Your task to perform on an android device: Go to location settings Image 0: 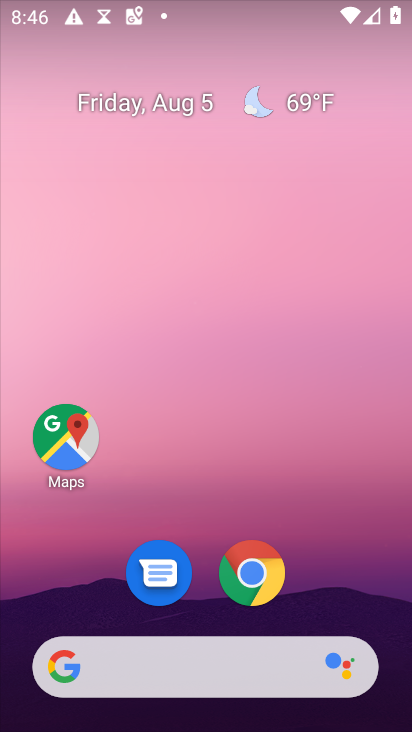
Step 0: drag from (179, 676) to (262, 82)
Your task to perform on an android device: Go to location settings Image 1: 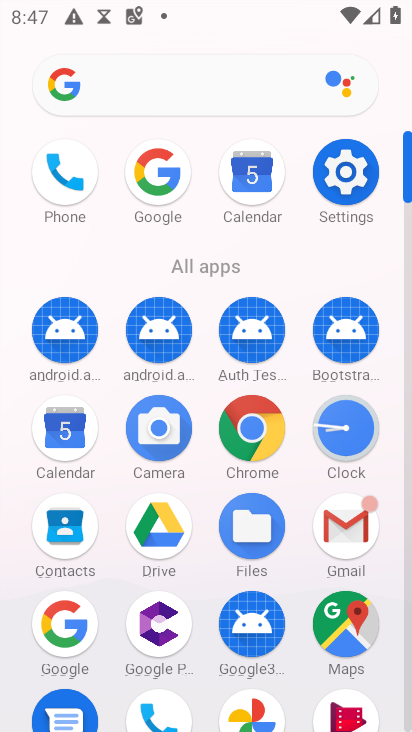
Step 1: click (346, 174)
Your task to perform on an android device: Go to location settings Image 2: 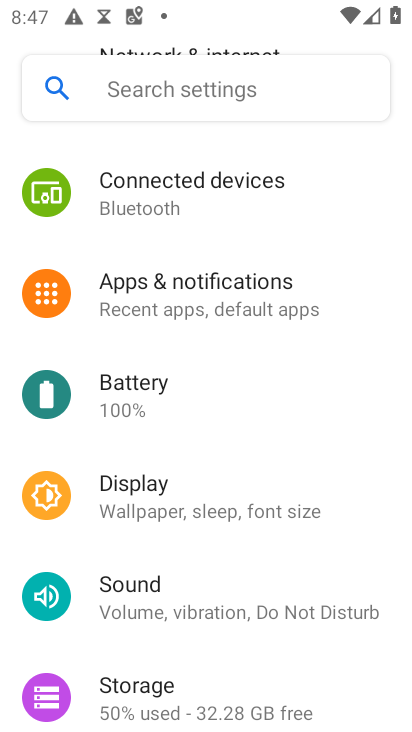
Step 2: drag from (182, 543) to (242, 441)
Your task to perform on an android device: Go to location settings Image 3: 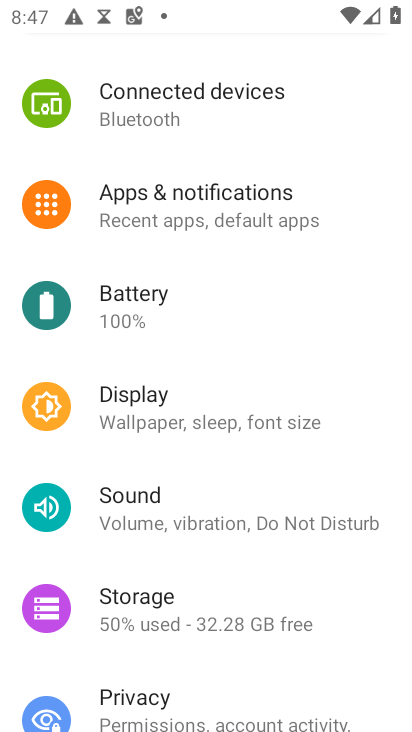
Step 3: drag from (172, 561) to (247, 453)
Your task to perform on an android device: Go to location settings Image 4: 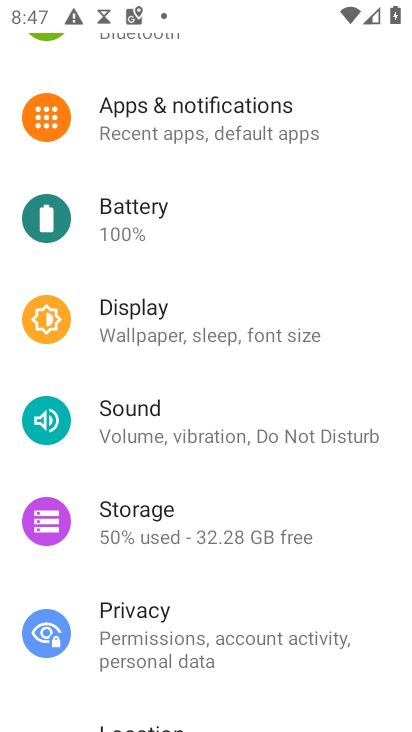
Step 4: drag from (180, 480) to (244, 380)
Your task to perform on an android device: Go to location settings Image 5: 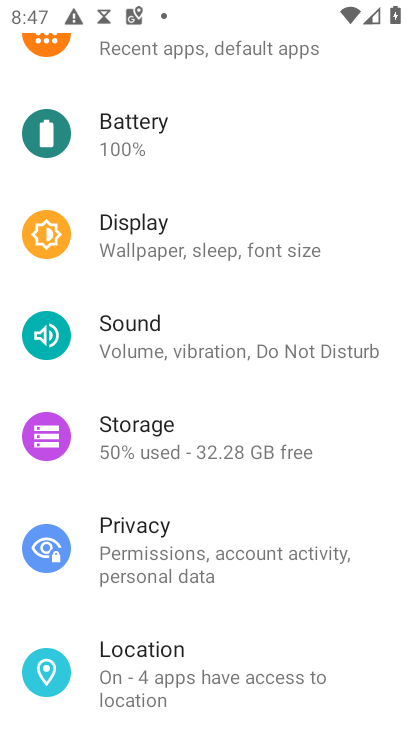
Step 5: drag from (189, 481) to (241, 390)
Your task to perform on an android device: Go to location settings Image 6: 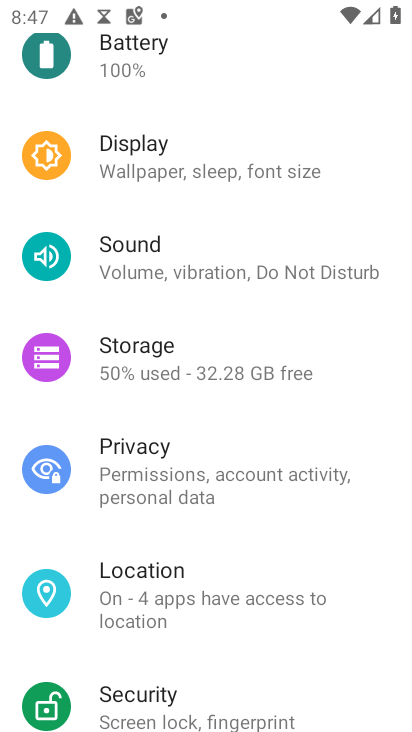
Step 6: click (148, 580)
Your task to perform on an android device: Go to location settings Image 7: 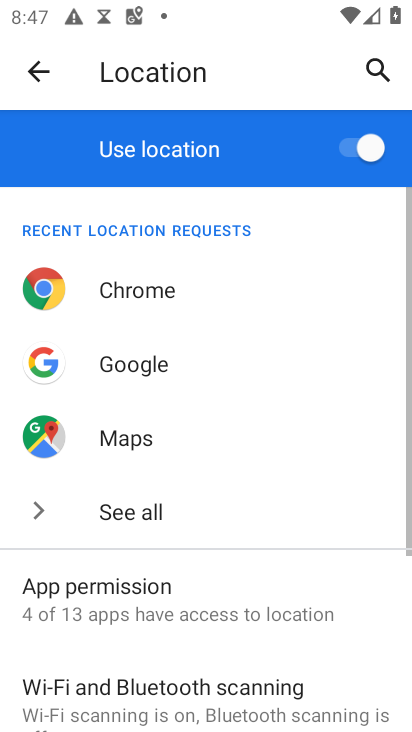
Step 7: task complete